Your task to perform on an android device: Open the calendar app, open the side menu, and click the "Day" option Image 0: 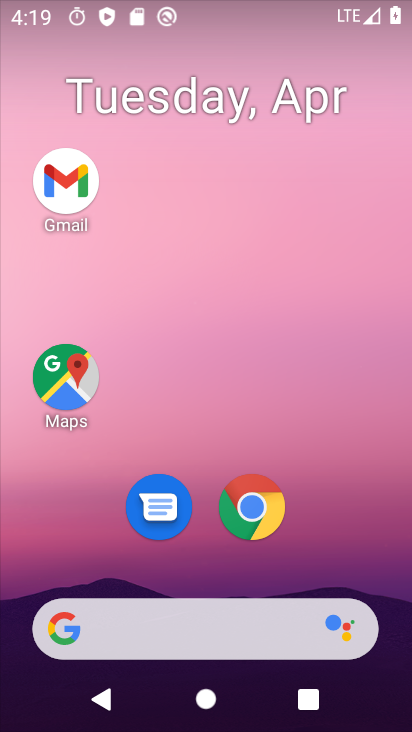
Step 0: drag from (271, 330) to (314, 88)
Your task to perform on an android device: Open the calendar app, open the side menu, and click the "Day" option Image 1: 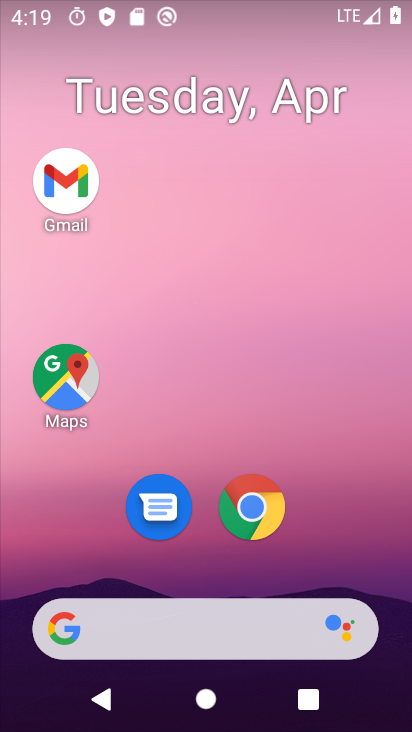
Step 1: drag from (242, 475) to (293, 131)
Your task to perform on an android device: Open the calendar app, open the side menu, and click the "Day" option Image 2: 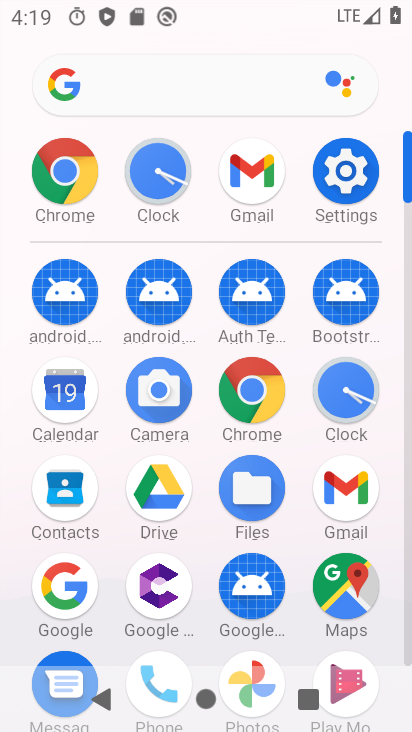
Step 2: click (40, 424)
Your task to perform on an android device: Open the calendar app, open the side menu, and click the "Day" option Image 3: 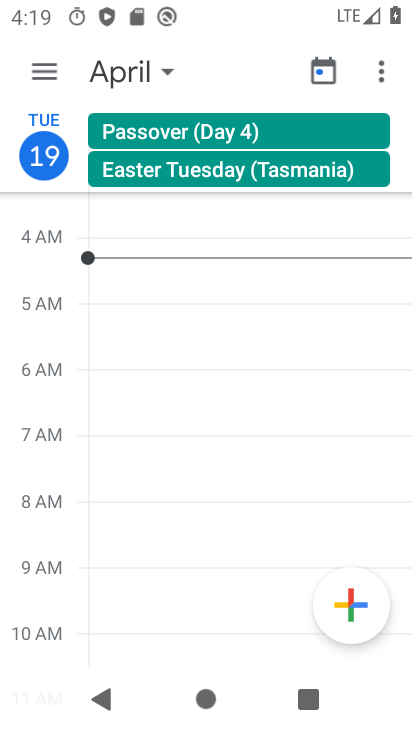
Step 3: click (39, 61)
Your task to perform on an android device: Open the calendar app, open the side menu, and click the "Day" option Image 4: 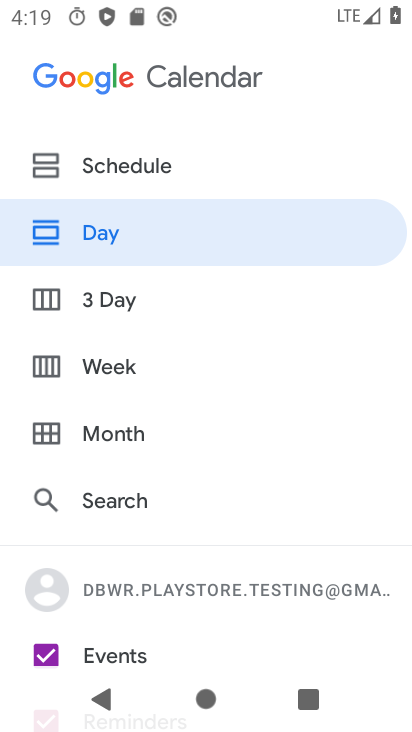
Step 4: click (128, 235)
Your task to perform on an android device: Open the calendar app, open the side menu, and click the "Day" option Image 5: 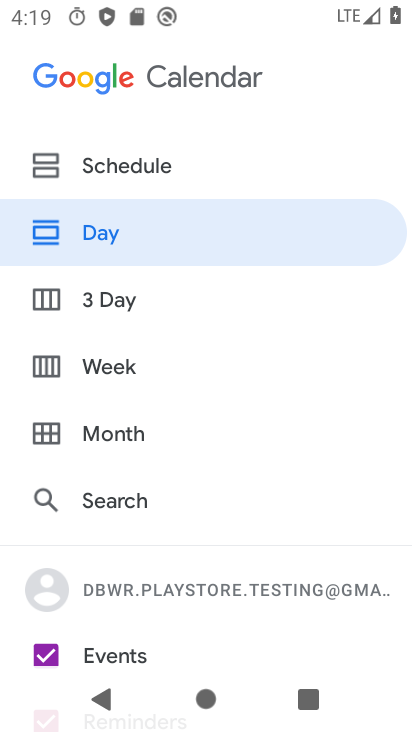
Step 5: task complete